Your task to perform on an android device: turn smart compose on in the gmail app Image 0: 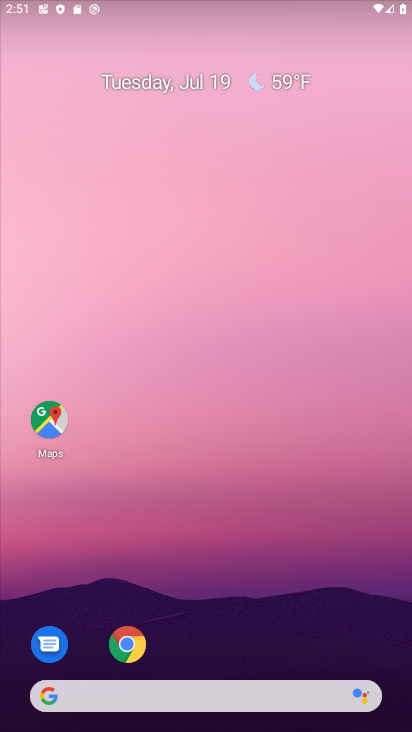
Step 0: press back button
Your task to perform on an android device: turn smart compose on in the gmail app Image 1: 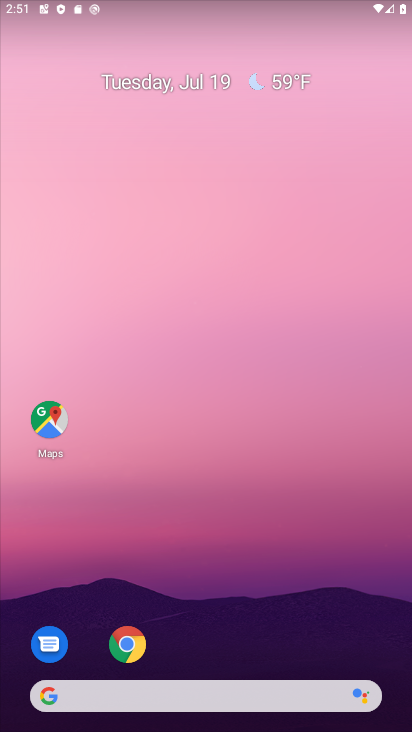
Step 1: drag from (263, 718) to (222, 241)
Your task to perform on an android device: turn smart compose on in the gmail app Image 2: 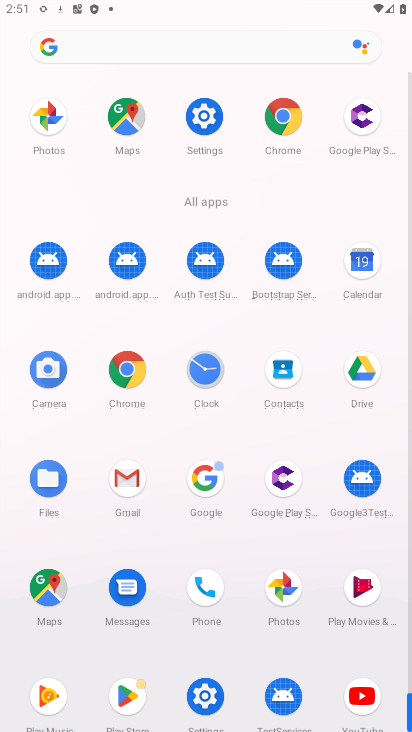
Step 2: click (102, 469)
Your task to perform on an android device: turn smart compose on in the gmail app Image 3: 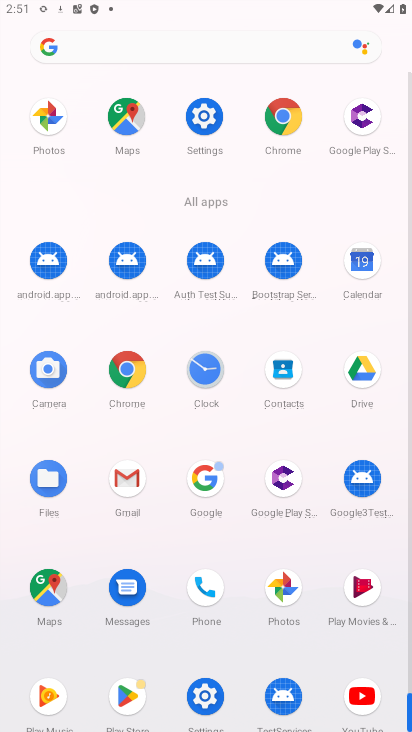
Step 3: click (124, 474)
Your task to perform on an android device: turn smart compose on in the gmail app Image 4: 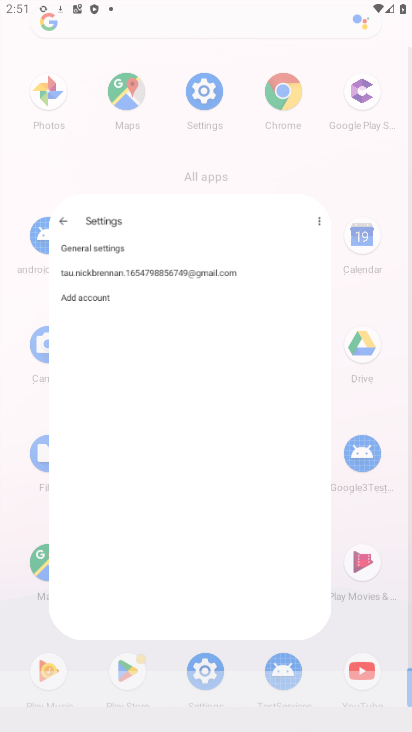
Step 4: click (127, 474)
Your task to perform on an android device: turn smart compose on in the gmail app Image 5: 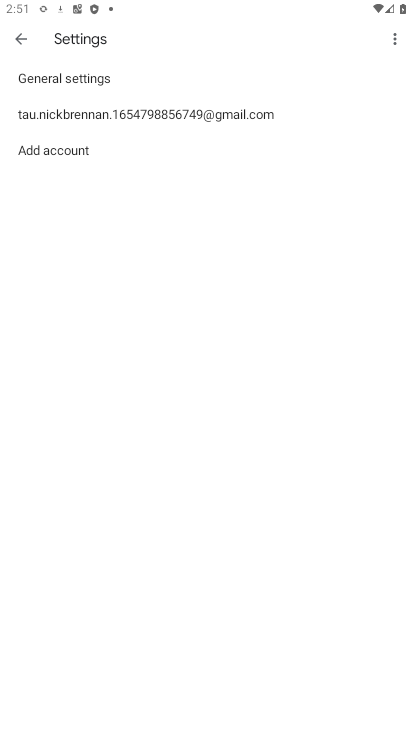
Step 5: click (112, 107)
Your task to perform on an android device: turn smart compose on in the gmail app Image 6: 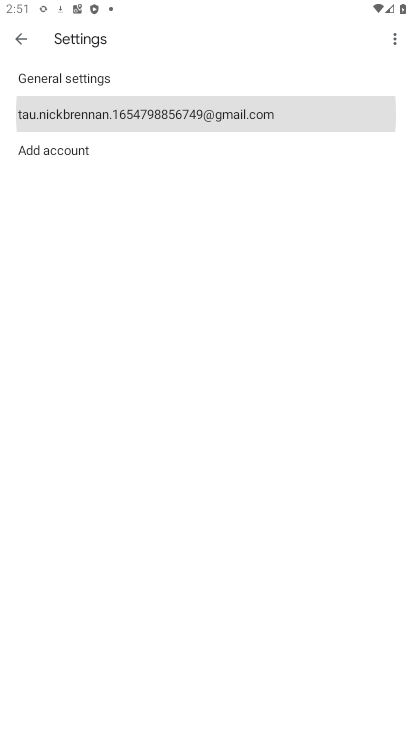
Step 6: click (110, 114)
Your task to perform on an android device: turn smart compose on in the gmail app Image 7: 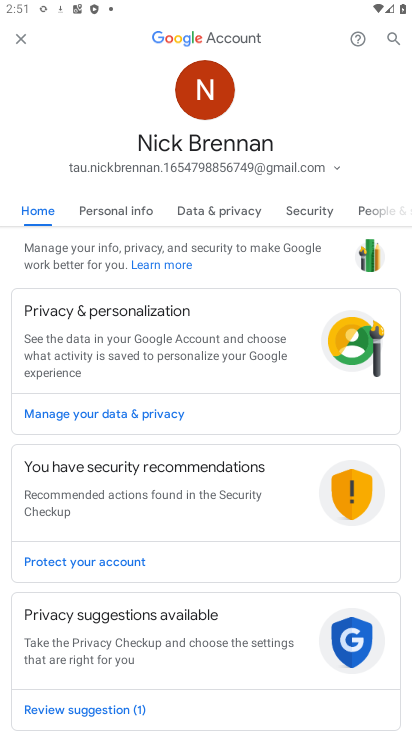
Step 7: click (17, 32)
Your task to perform on an android device: turn smart compose on in the gmail app Image 8: 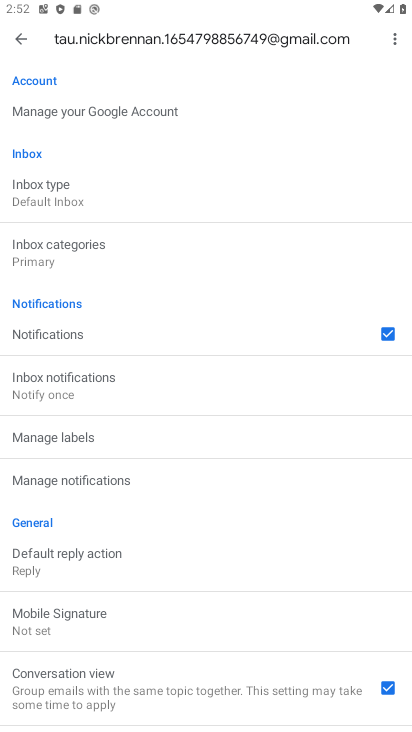
Step 8: drag from (92, 624) to (116, 160)
Your task to perform on an android device: turn smart compose on in the gmail app Image 9: 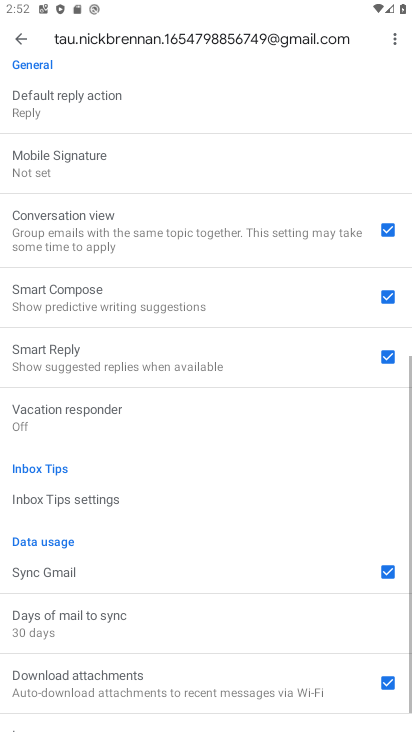
Step 9: drag from (179, 545) to (161, 441)
Your task to perform on an android device: turn smart compose on in the gmail app Image 10: 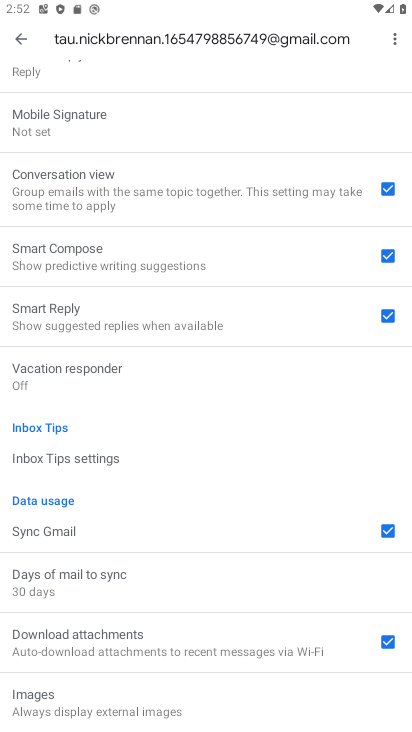
Step 10: click (386, 255)
Your task to perform on an android device: turn smart compose on in the gmail app Image 11: 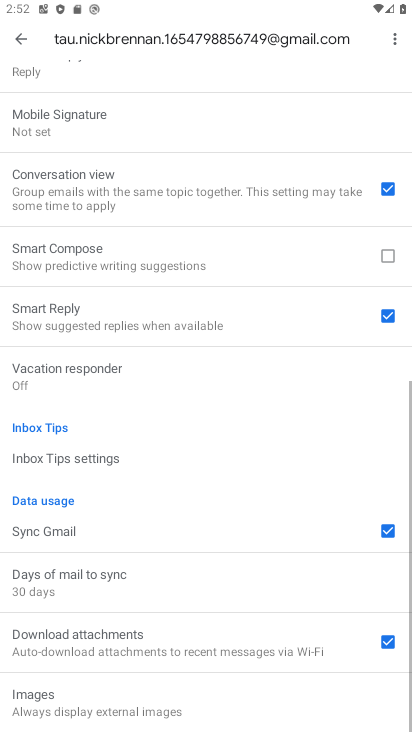
Step 11: click (386, 255)
Your task to perform on an android device: turn smart compose on in the gmail app Image 12: 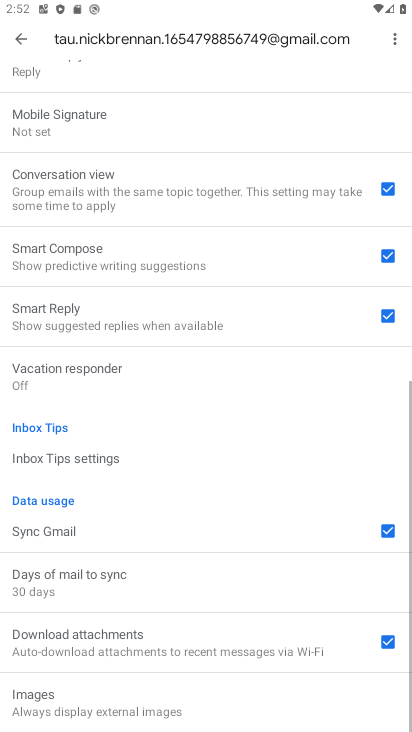
Step 12: task complete